Your task to perform on an android device: toggle improve location accuracy Image 0: 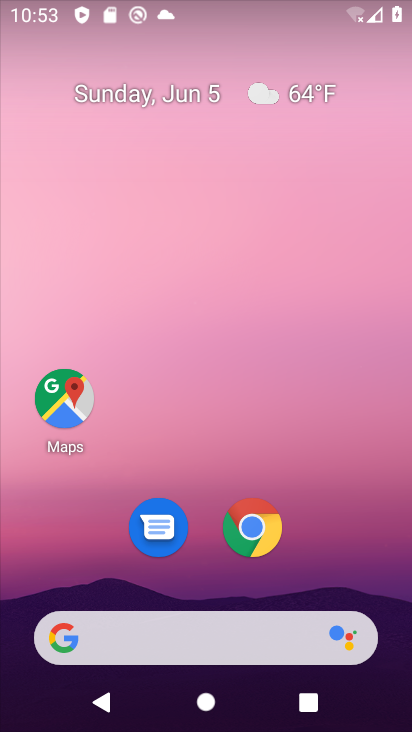
Step 0: drag from (325, 562) to (311, 23)
Your task to perform on an android device: toggle improve location accuracy Image 1: 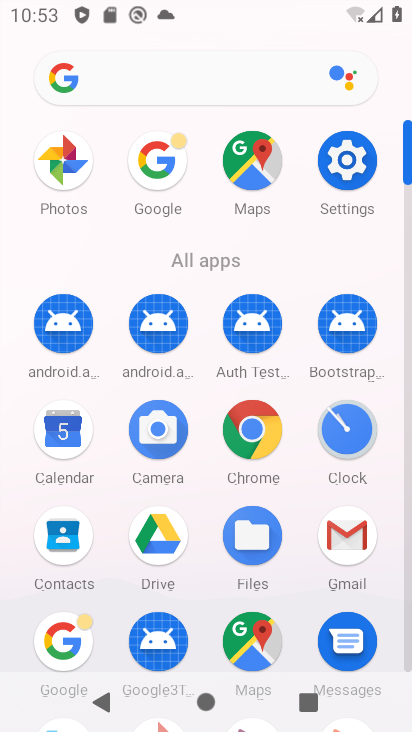
Step 1: click (345, 171)
Your task to perform on an android device: toggle improve location accuracy Image 2: 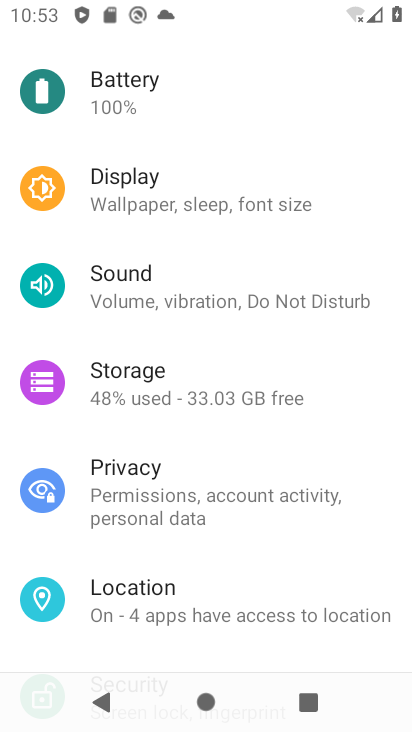
Step 2: click (225, 599)
Your task to perform on an android device: toggle improve location accuracy Image 3: 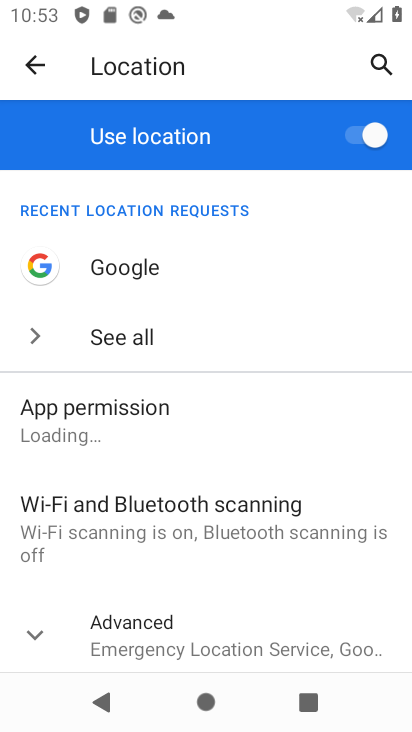
Step 3: drag from (268, 570) to (263, 240)
Your task to perform on an android device: toggle improve location accuracy Image 4: 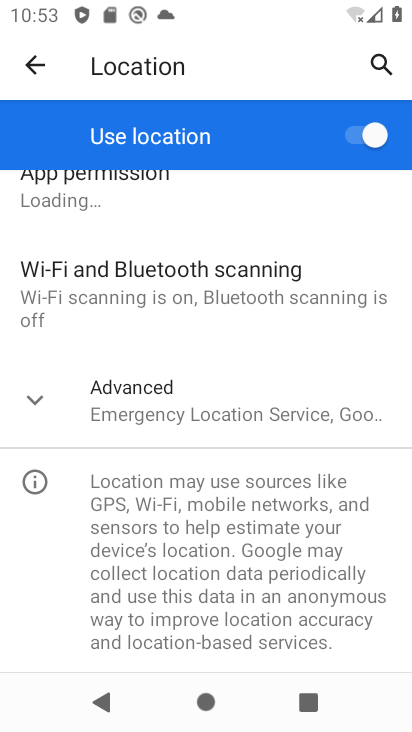
Step 4: click (213, 404)
Your task to perform on an android device: toggle improve location accuracy Image 5: 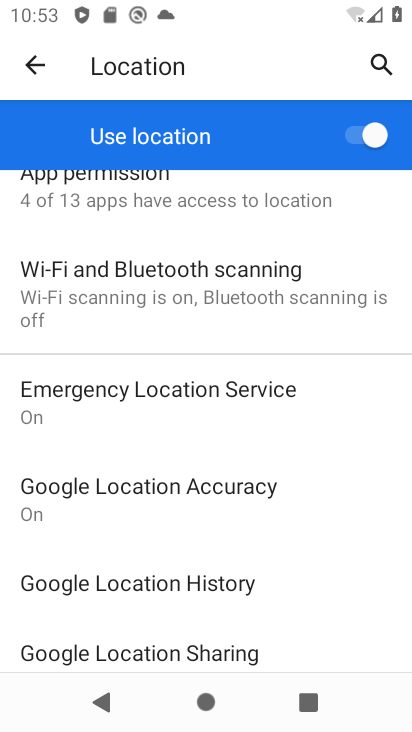
Step 5: click (225, 484)
Your task to perform on an android device: toggle improve location accuracy Image 6: 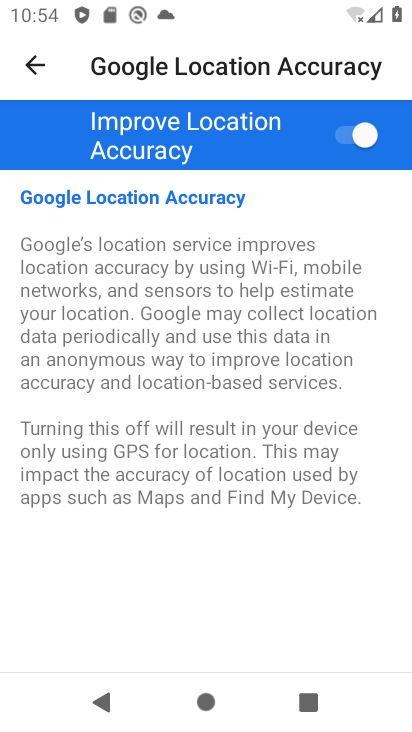
Step 6: click (345, 135)
Your task to perform on an android device: toggle improve location accuracy Image 7: 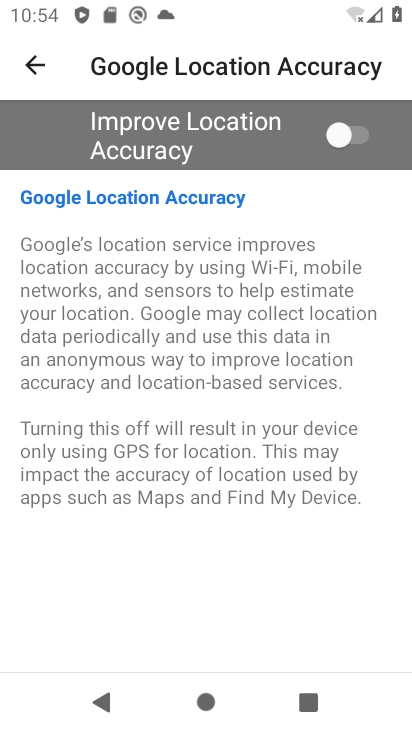
Step 7: task complete